Your task to perform on an android device: toggle improve location accuracy Image 0: 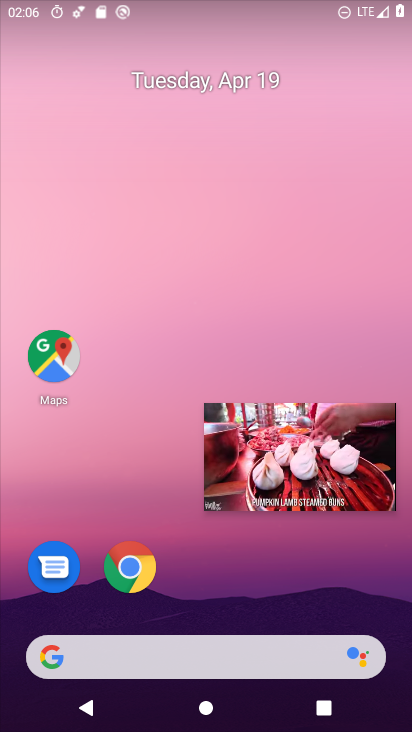
Step 0: drag from (155, 402) to (183, 44)
Your task to perform on an android device: toggle improve location accuracy Image 1: 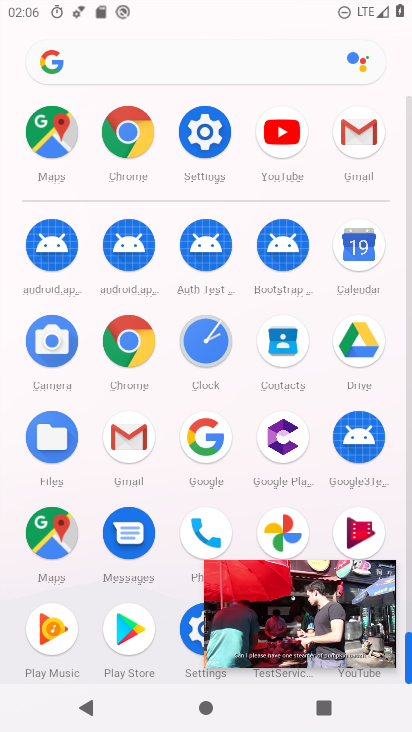
Step 1: click (194, 625)
Your task to perform on an android device: toggle improve location accuracy Image 2: 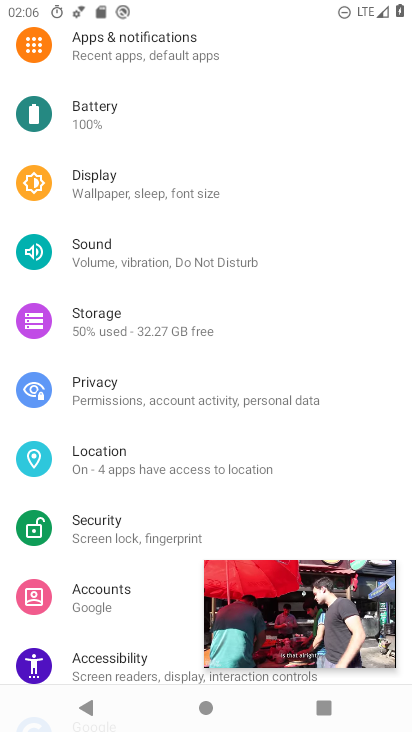
Step 2: click (172, 464)
Your task to perform on an android device: toggle improve location accuracy Image 3: 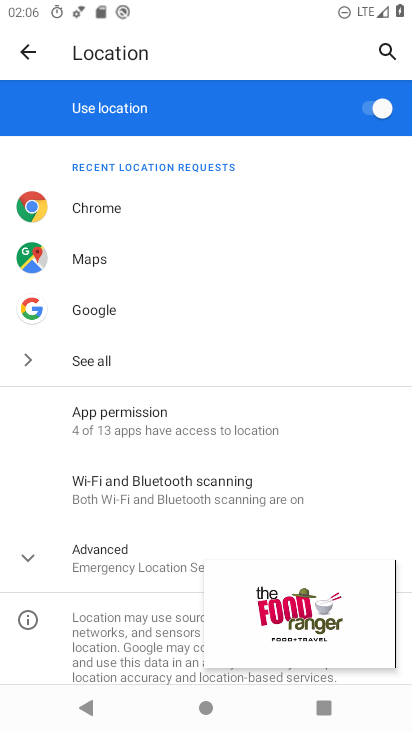
Step 3: click (156, 424)
Your task to perform on an android device: toggle improve location accuracy Image 4: 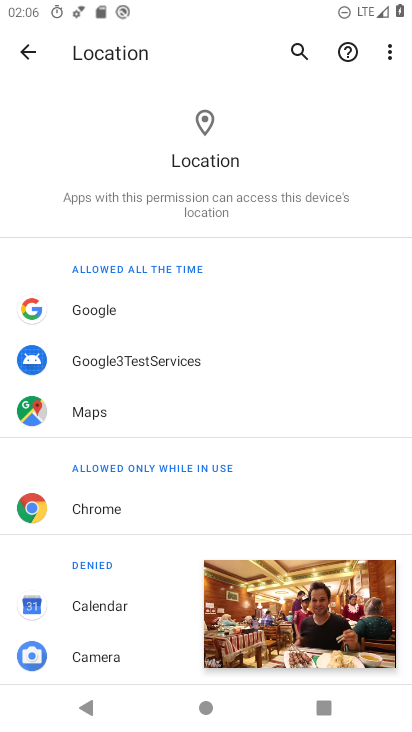
Step 4: press back button
Your task to perform on an android device: toggle improve location accuracy Image 5: 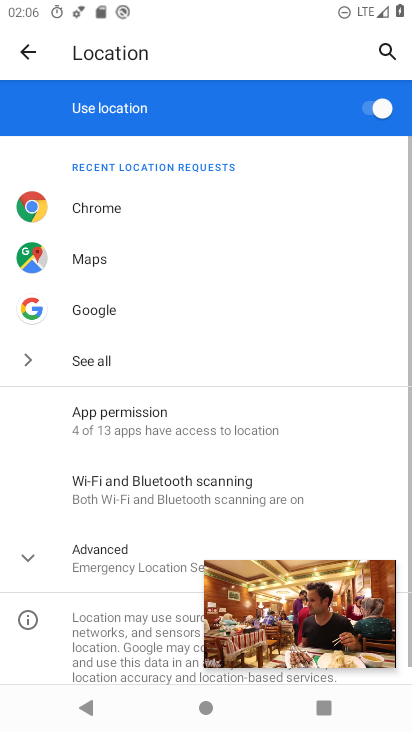
Step 5: drag from (107, 514) to (116, 153)
Your task to perform on an android device: toggle improve location accuracy Image 6: 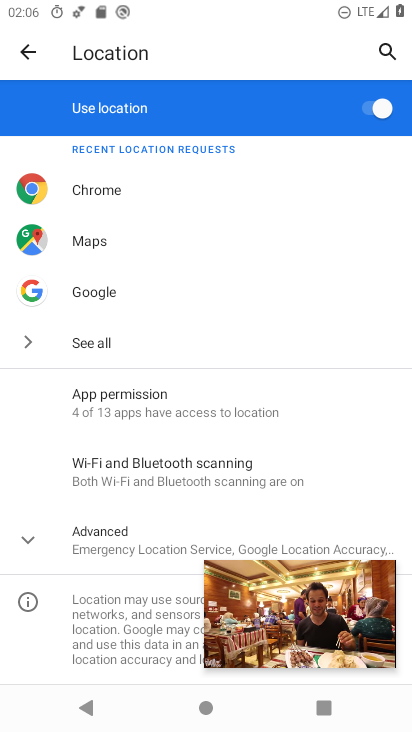
Step 6: click (105, 531)
Your task to perform on an android device: toggle improve location accuracy Image 7: 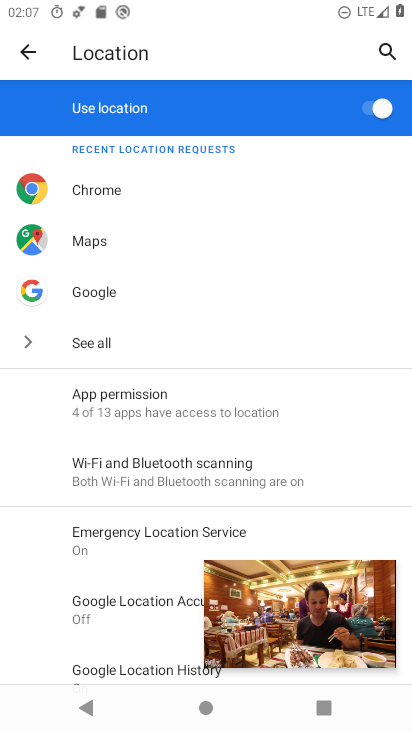
Step 7: click (106, 620)
Your task to perform on an android device: toggle improve location accuracy Image 8: 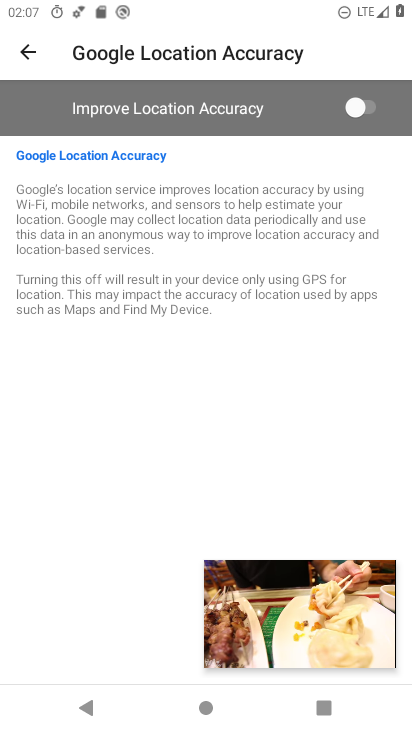
Step 8: click (310, 118)
Your task to perform on an android device: toggle improve location accuracy Image 9: 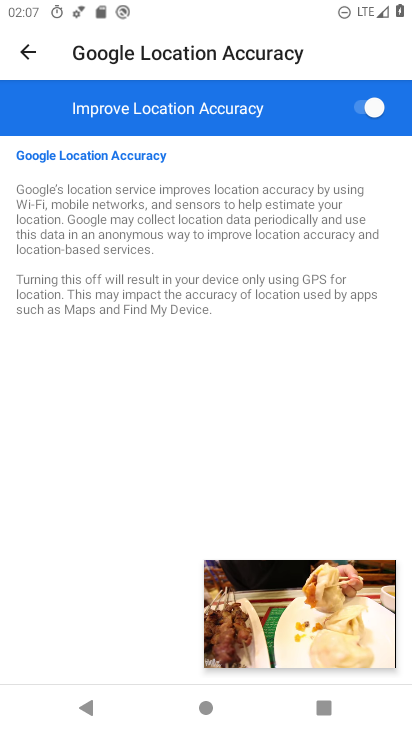
Step 9: task complete